Your task to perform on an android device: Is it going to rain this weekend? Image 0: 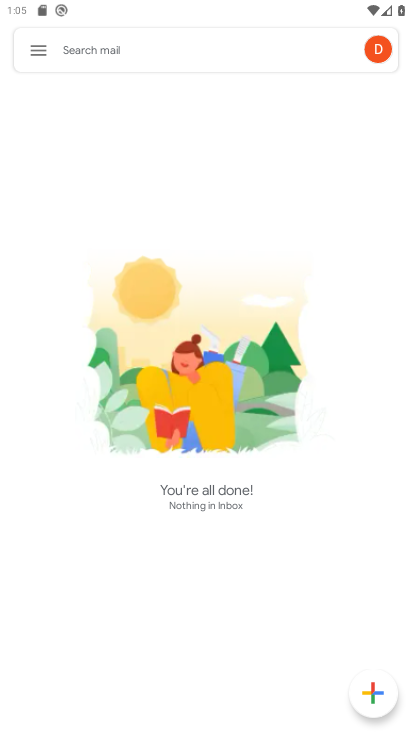
Step 0: press home button
Your task to perform on an android device: Is it going to rain this weekend? Image 1: 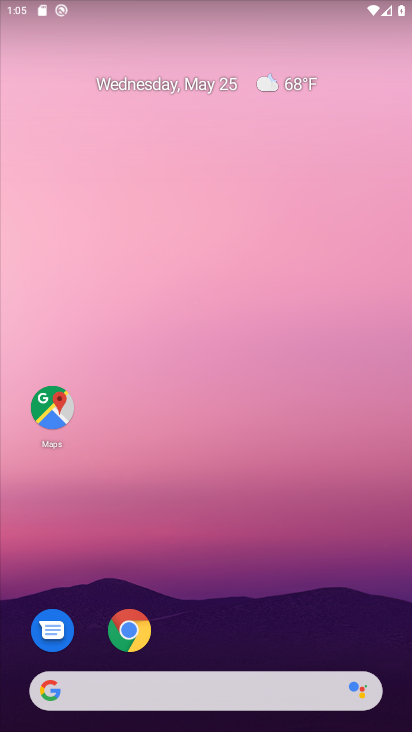
Step 1: drag from (200, 657) to (204, 316)
Your task to perform on an android device: Is it going to rain this weekend? Image 2: 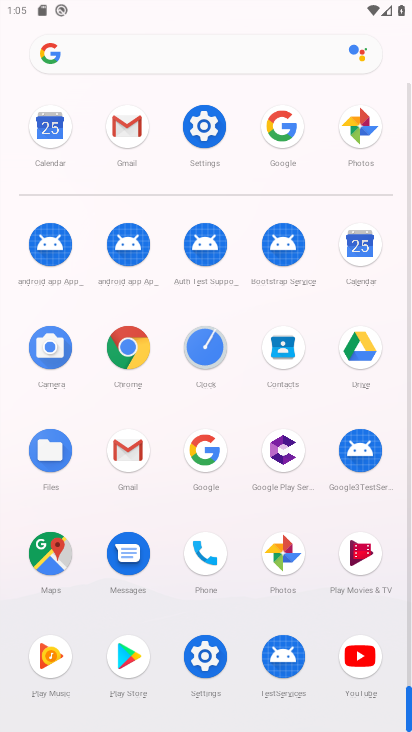
Step 2: click (190, 451)
Your task to perform on an android device: Is it going to rain this weekend? Image 3: 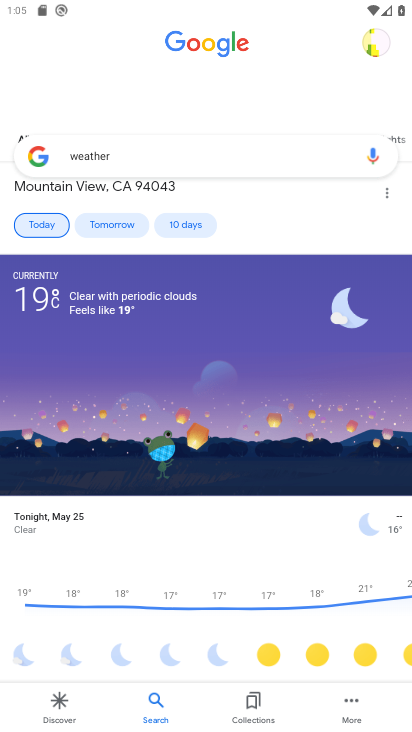
Step 3: click (131, 367)
Your task to perform on an android device: Is it going to rain this weekend? Image 4: 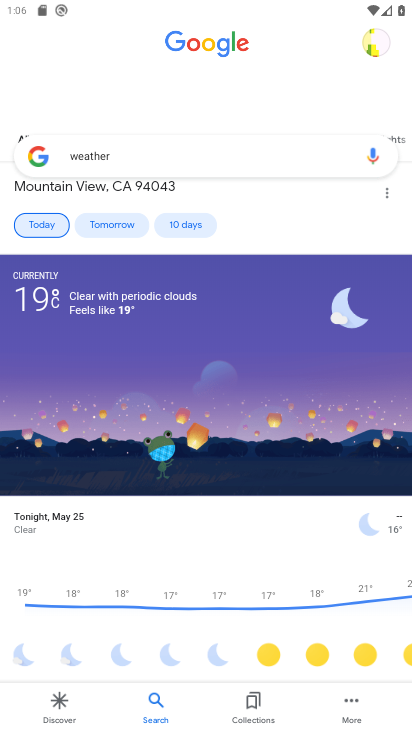
Step 4: task complete